Your task to perform on an android device: change notifications settings Image 0: 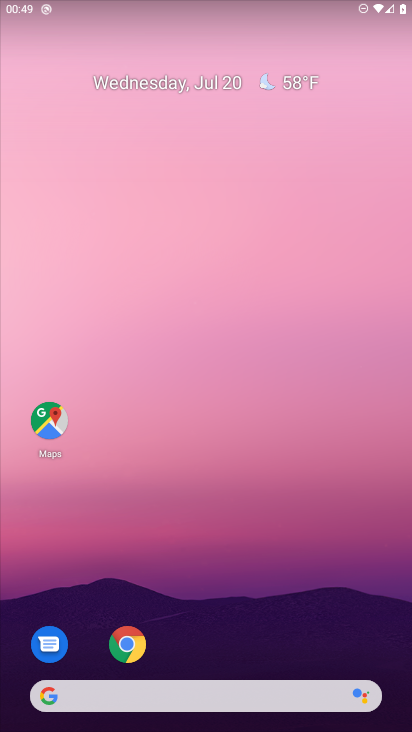
Step 0: drag from (56, 622) to (227, 36)
Your task to perform on an android device: change notifications settings Image 1: 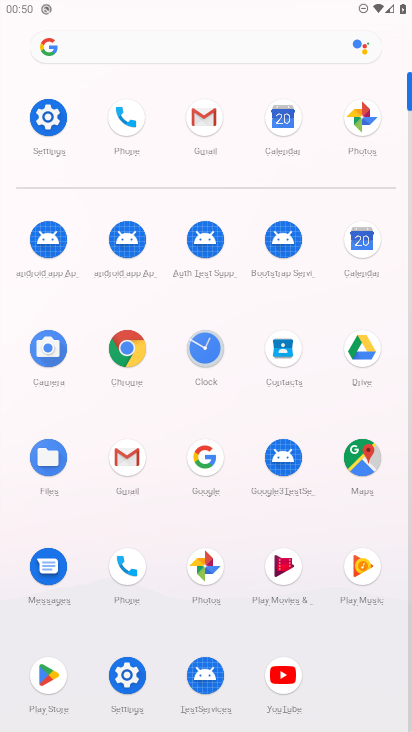
Step 1: click (116, 687)
Your task to perform on an android device: change notifications settings Image 2: 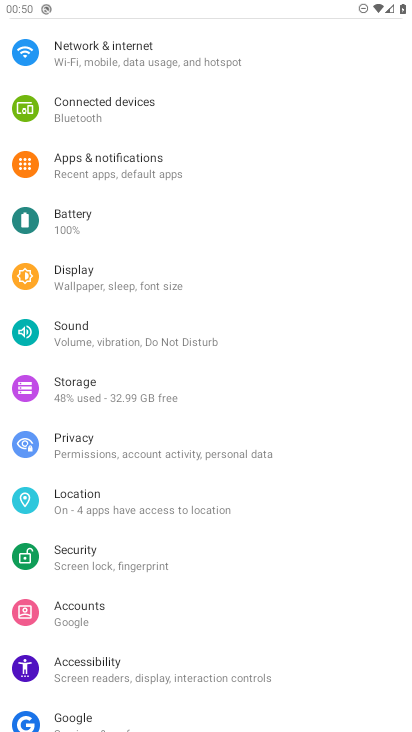
Step 2: click (103, 169)
Your task to perform on an android device: change notifications settings Image 3: 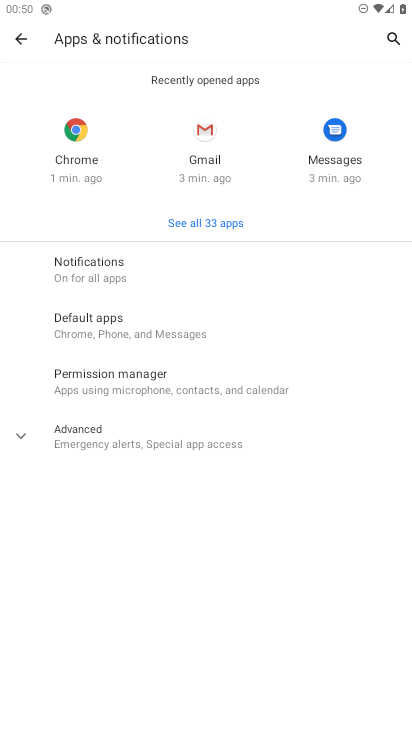
Step 3: click (121, 284)
Your task to perform on an android device: change notifications settings Image 4: 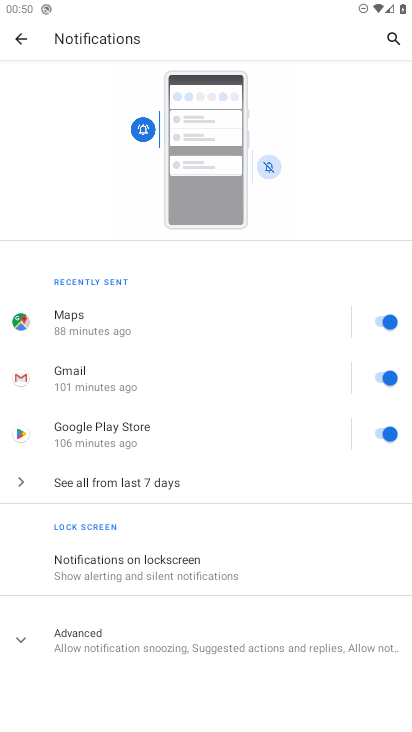
Step 4: task complete